Your task to perform on an android device: change the clock display to digital Image 0: 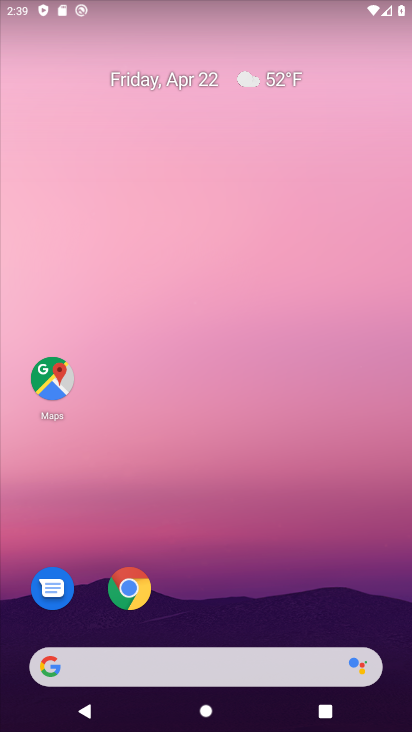
Step 0: drag from (355, 545) to (322, 1)
Your task to perform on an android device: change the clock display to digital Image 1: 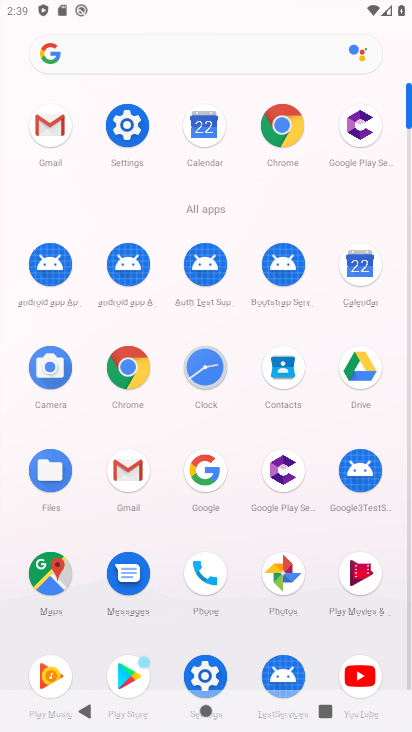
Step 1: click (201, 371)
Your task to perform on an android device: change the clock display to digital Image 2: 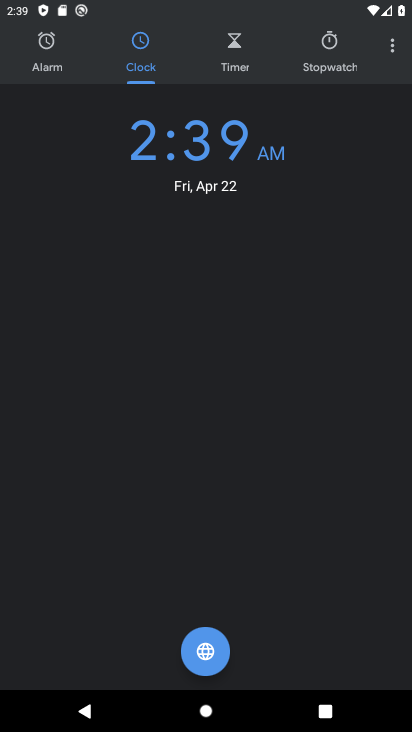
Step 2: click (394, 48)
Your task to perform on an android device: change the clock display to digital Image 3: 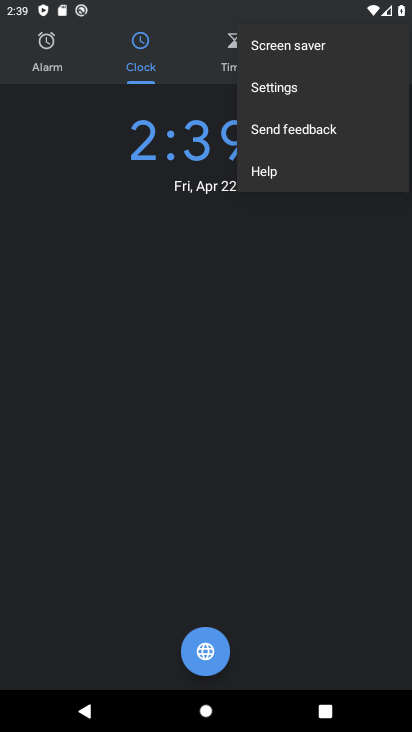
Step 3: click (292, 96)
Your task to perform on an android device: change the clock display to digital Image 4: 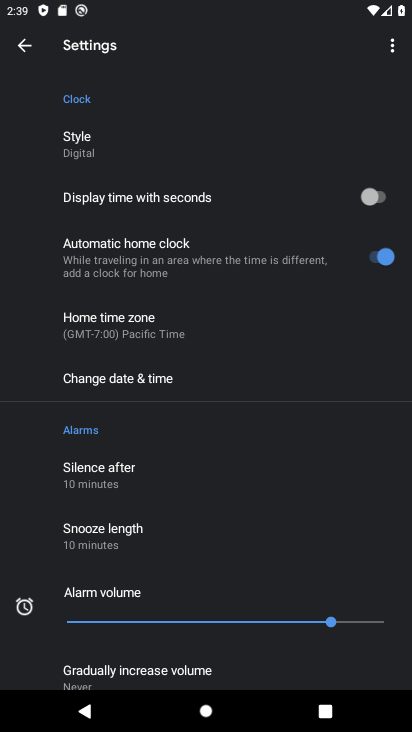
Step 4: task complete